Your task to perform on an android device: Show me recent news Image 0: 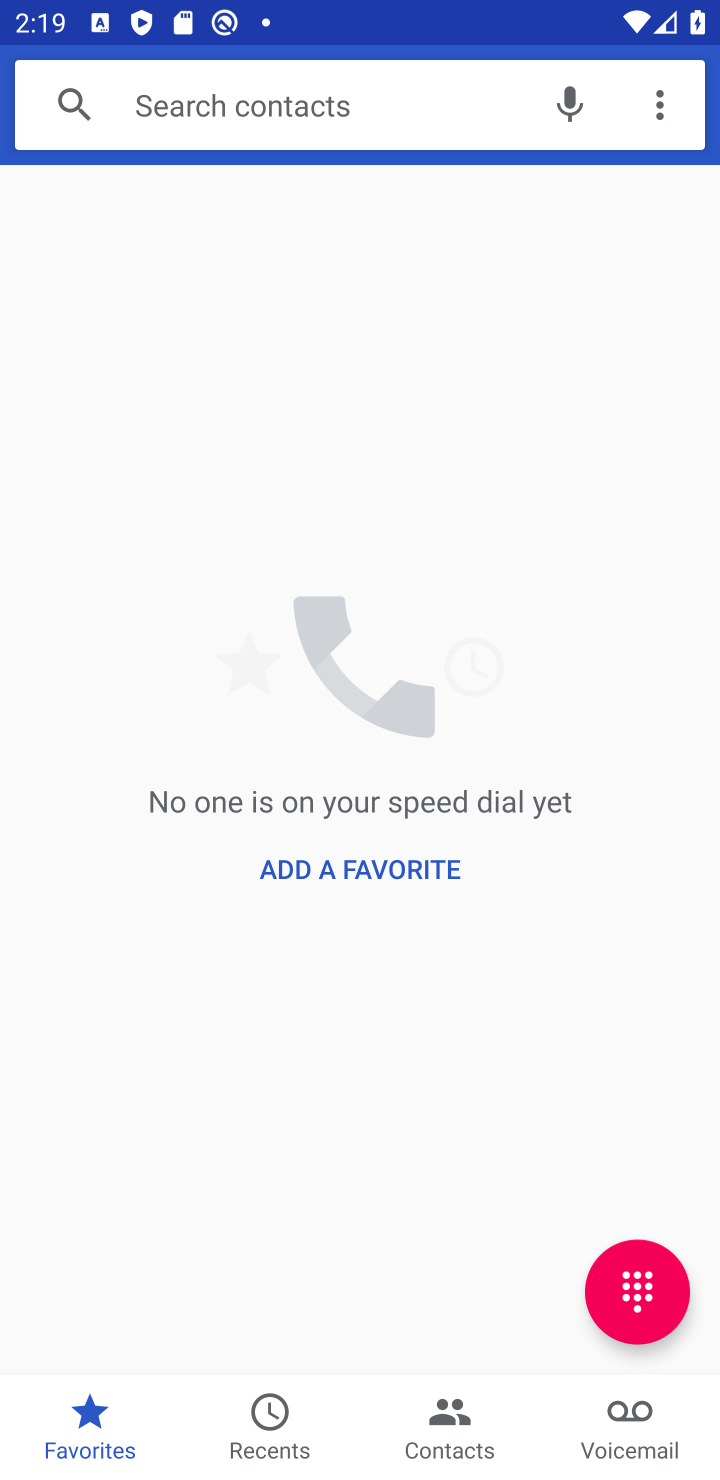
Step 0: press home button
Your task to perform on an android device: Show me recent news Image 1: 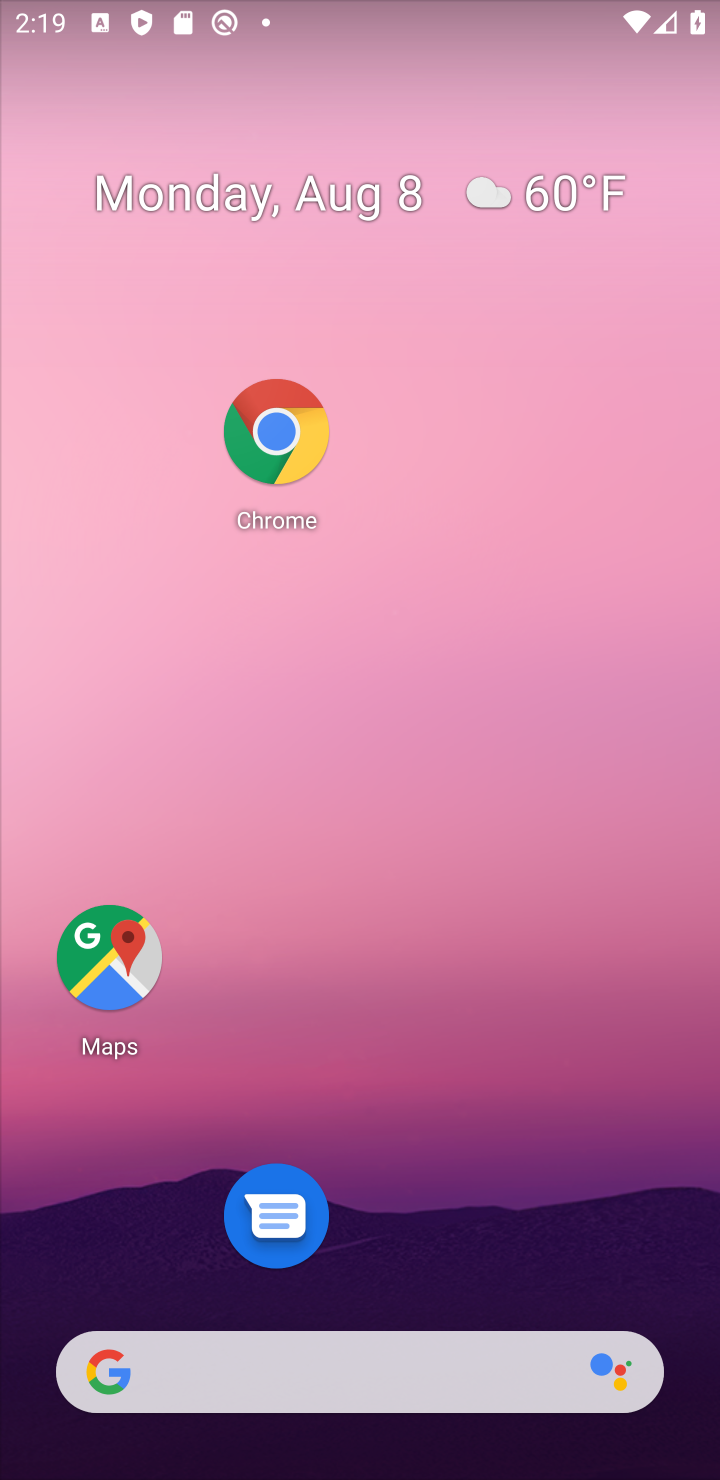
Step 1: drag from (371, 1103) to (369, 169)
Your task to perform on an android device: Show me recent news Image 2: 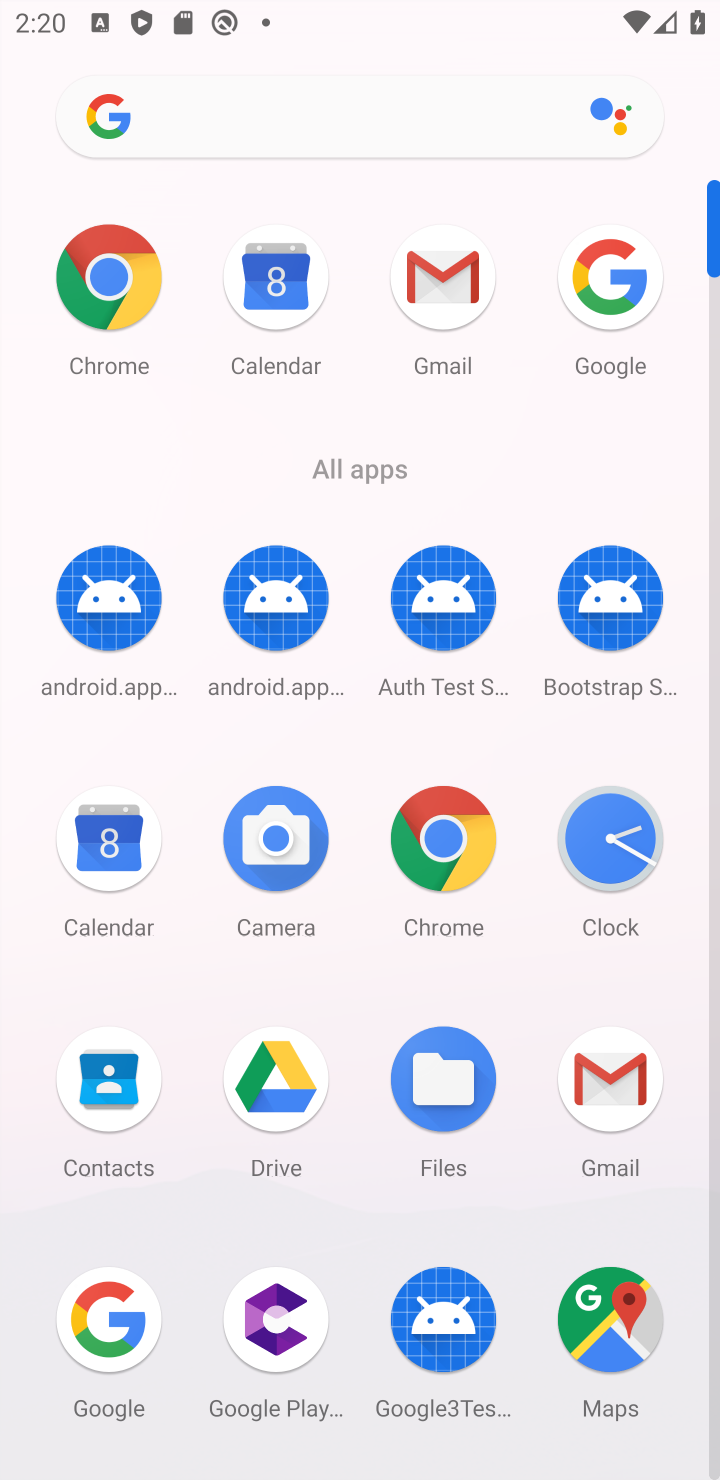
Step 2: click (107, 1331)
Your task to perform on an android device: Show me recent news Image 3: 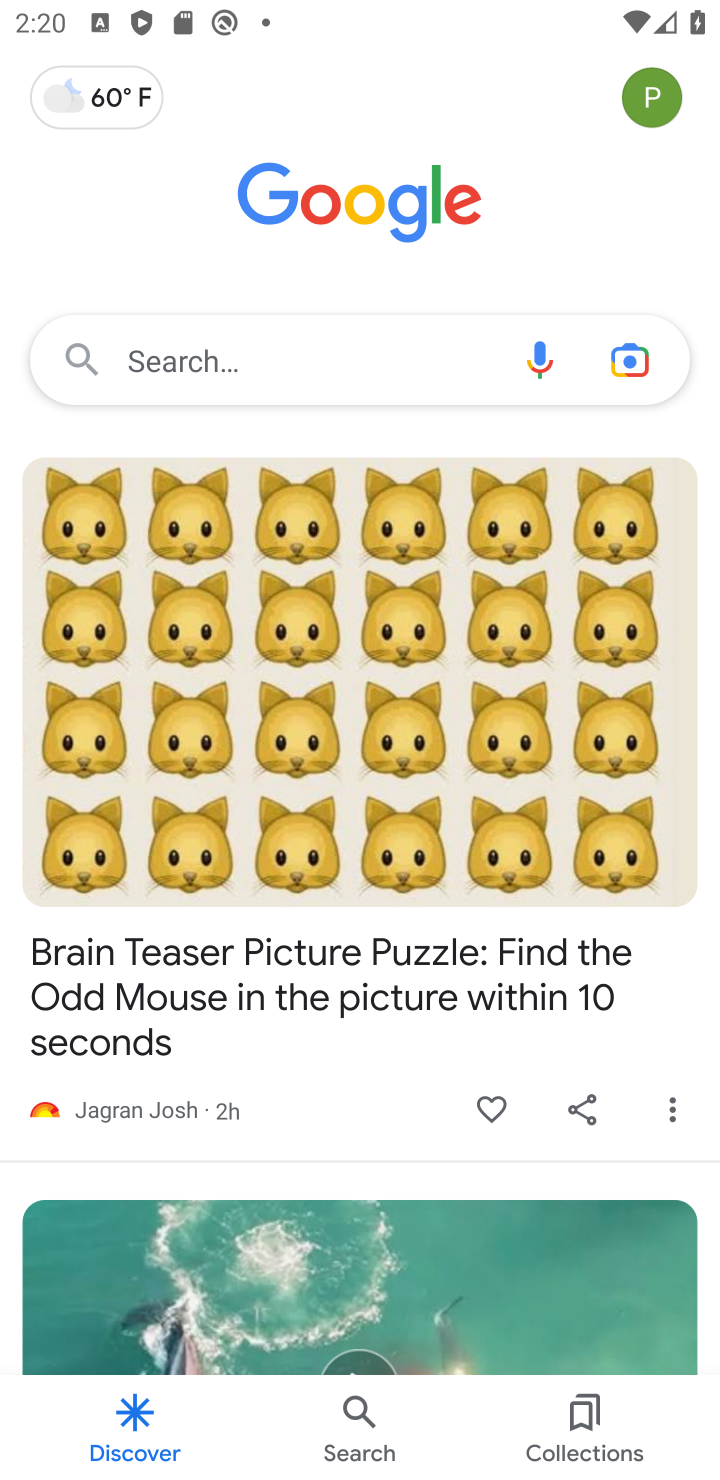
Step 3: click (417, 352)
Your task to perform on an android device: Show me recent news Image 4: 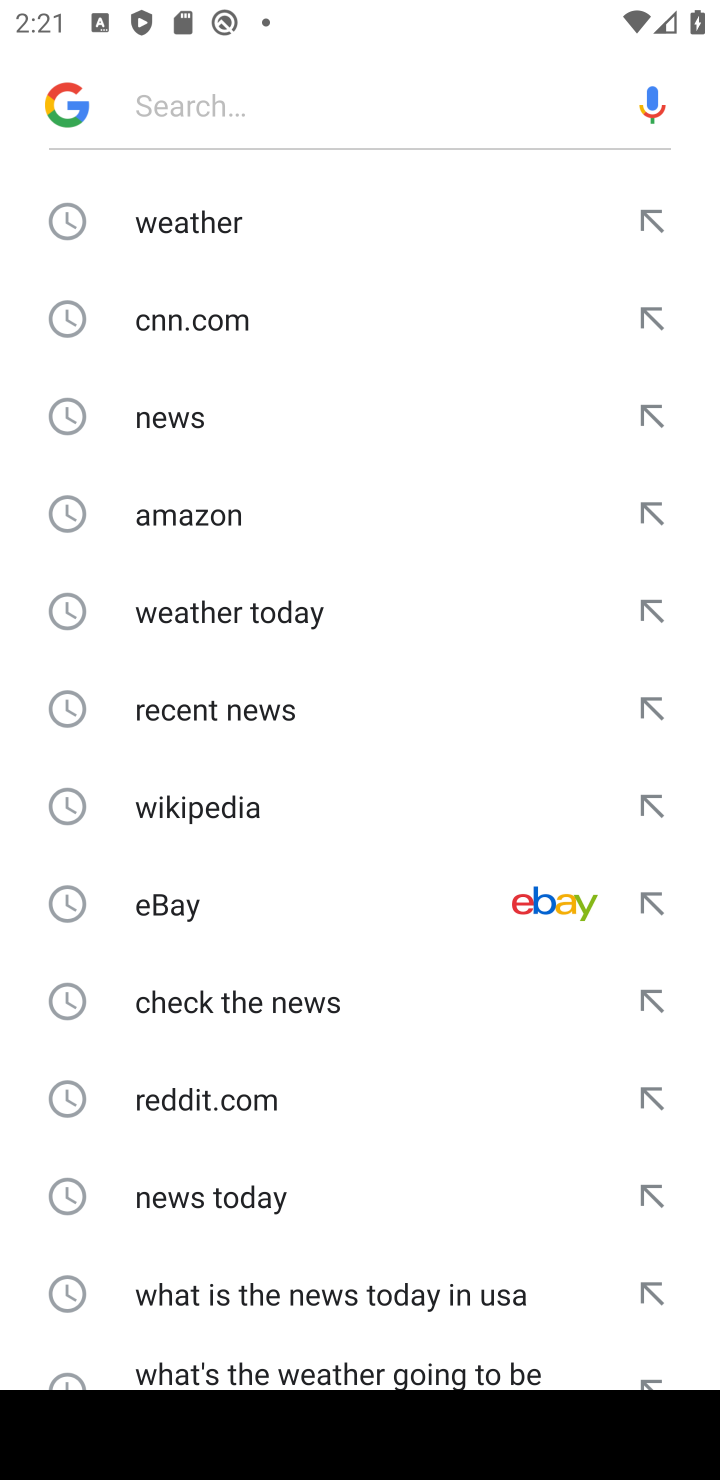
Step 4: click (242, 715)
Your task to perform on an android device: Show me recent news Image 5: 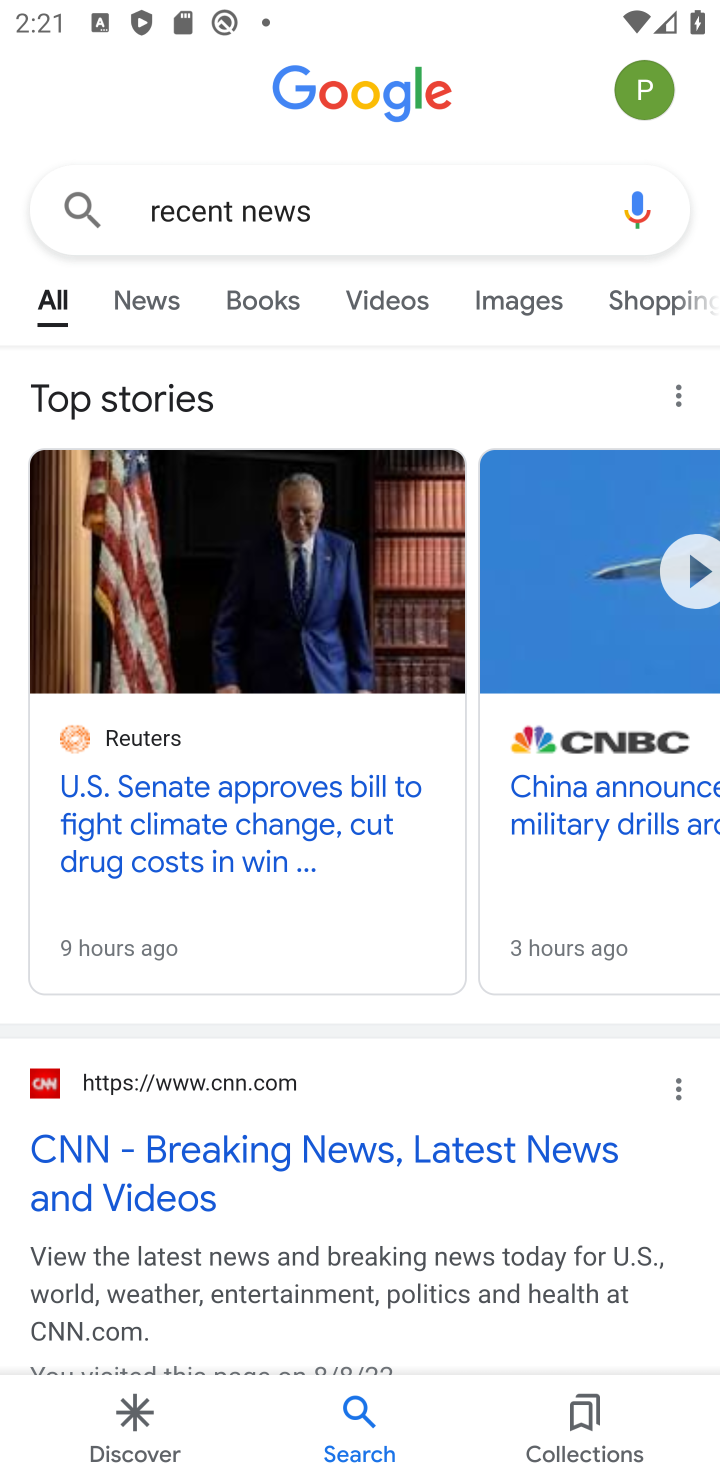
Step 5: click (138, 296)
Your task to perform on an android device: Show me recent news Image 6: 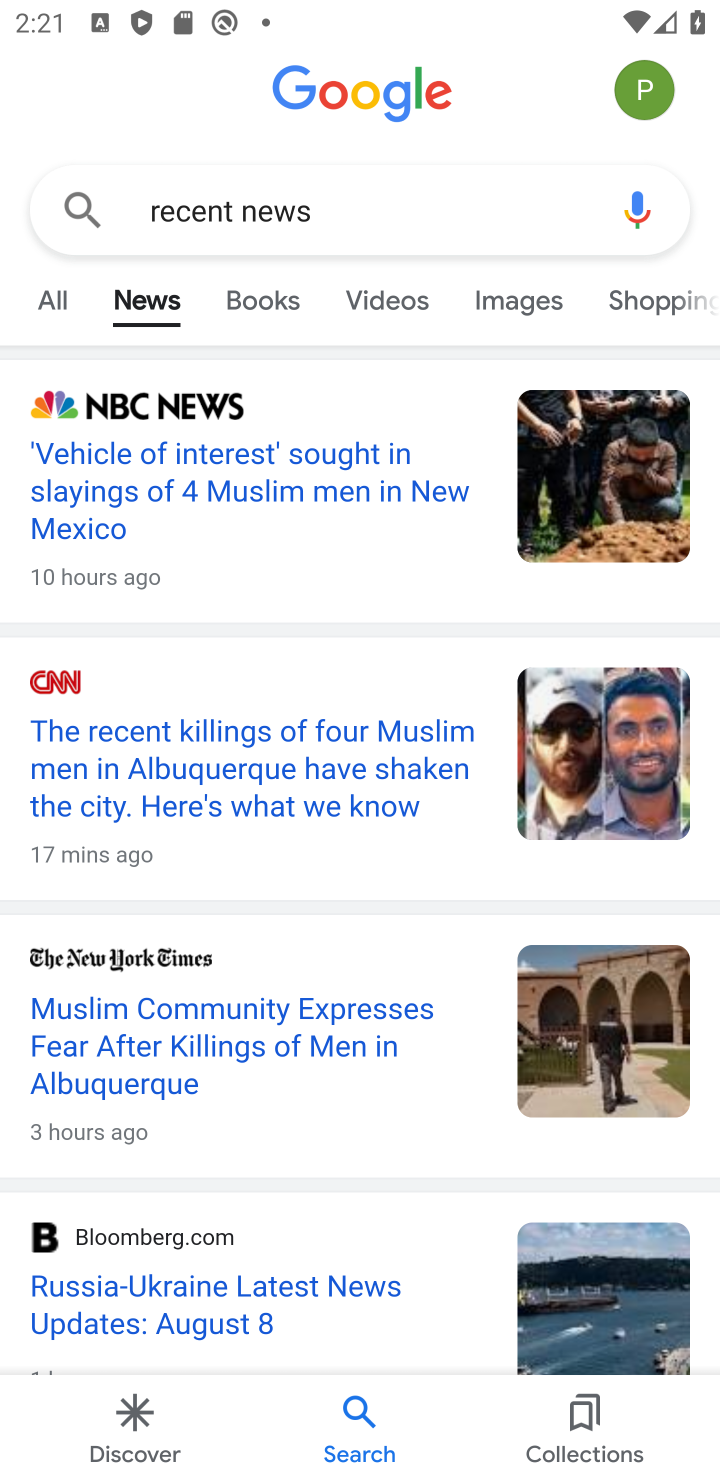
Step 6: task complete